Your task to perform on an android device: turn on sleep mode Image 0: 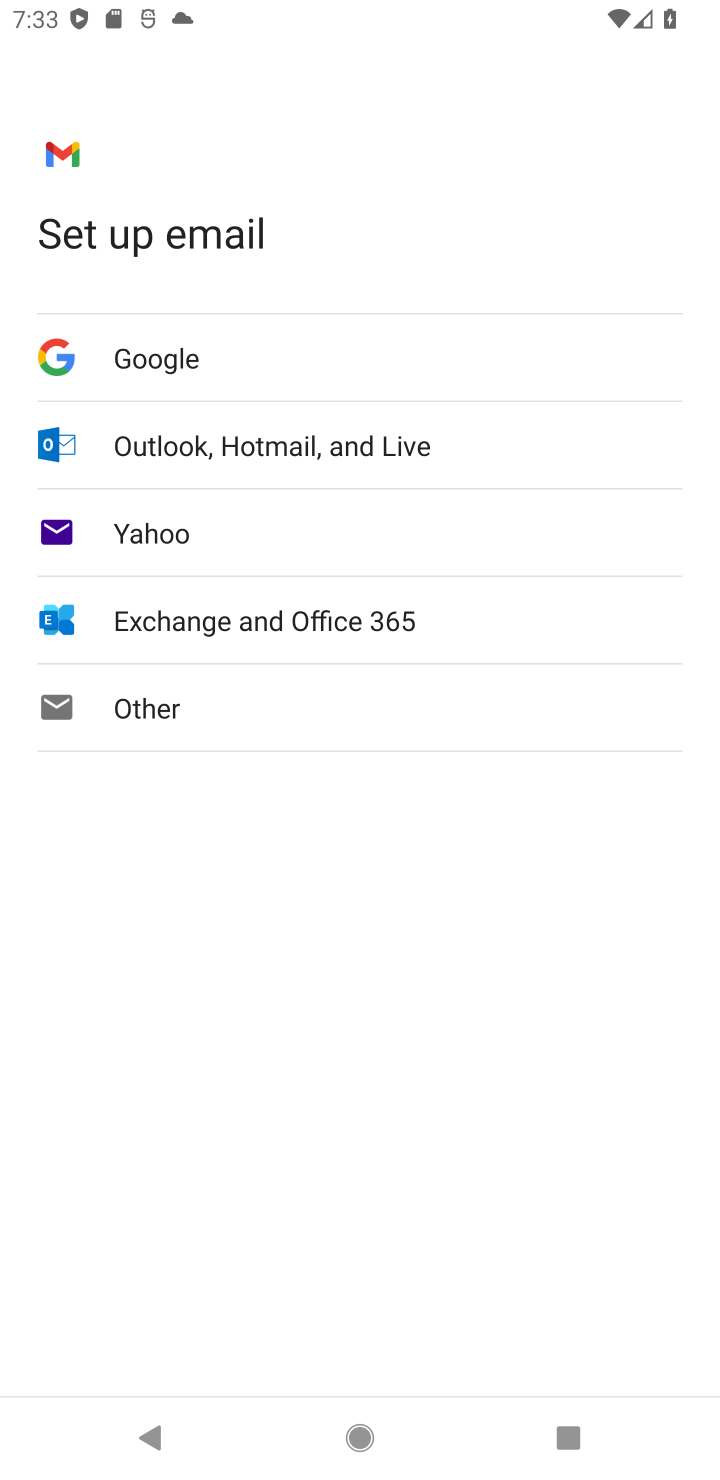
Step 0: press home button
Your task to perform on an android device: turn on sleep mode Image 1: 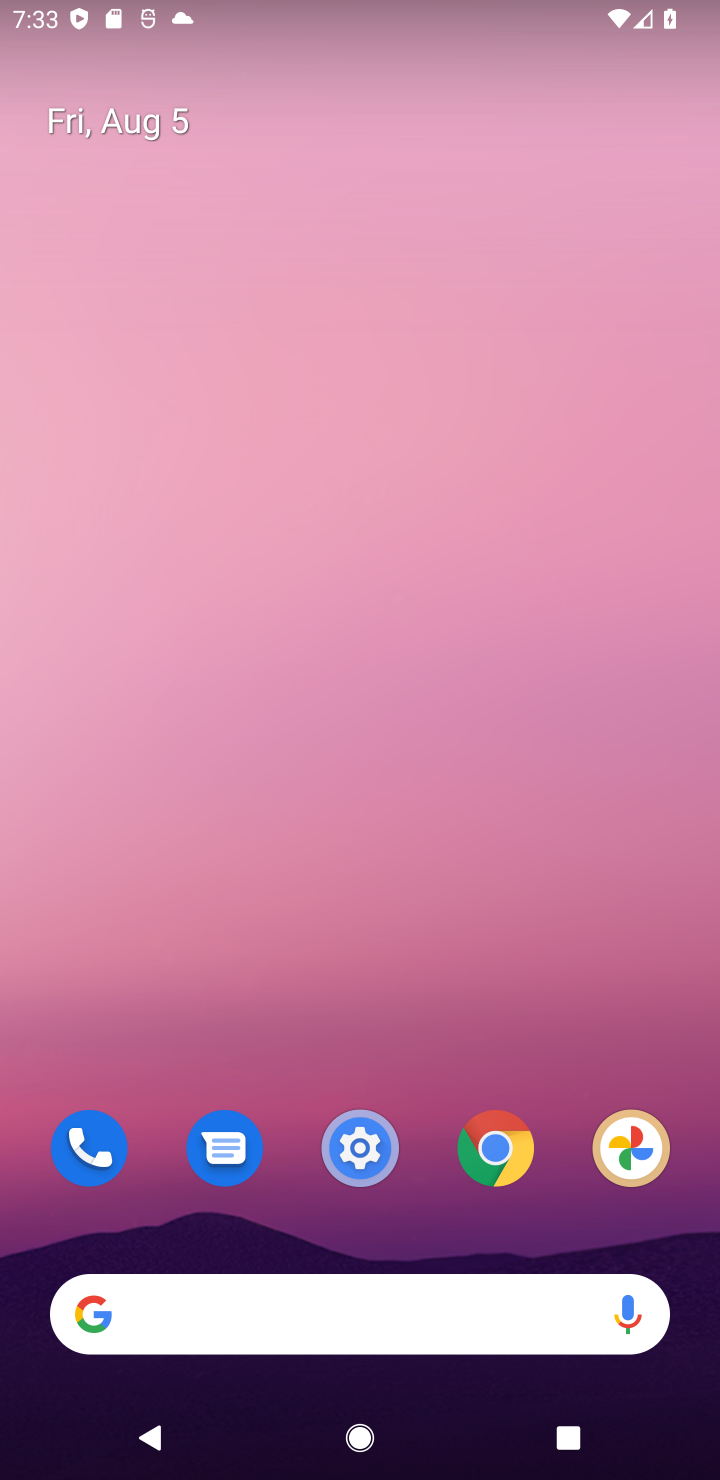
Step 1: click (364, 1151)
Your task to perform on an android device: turn on sleep mode Image 2: 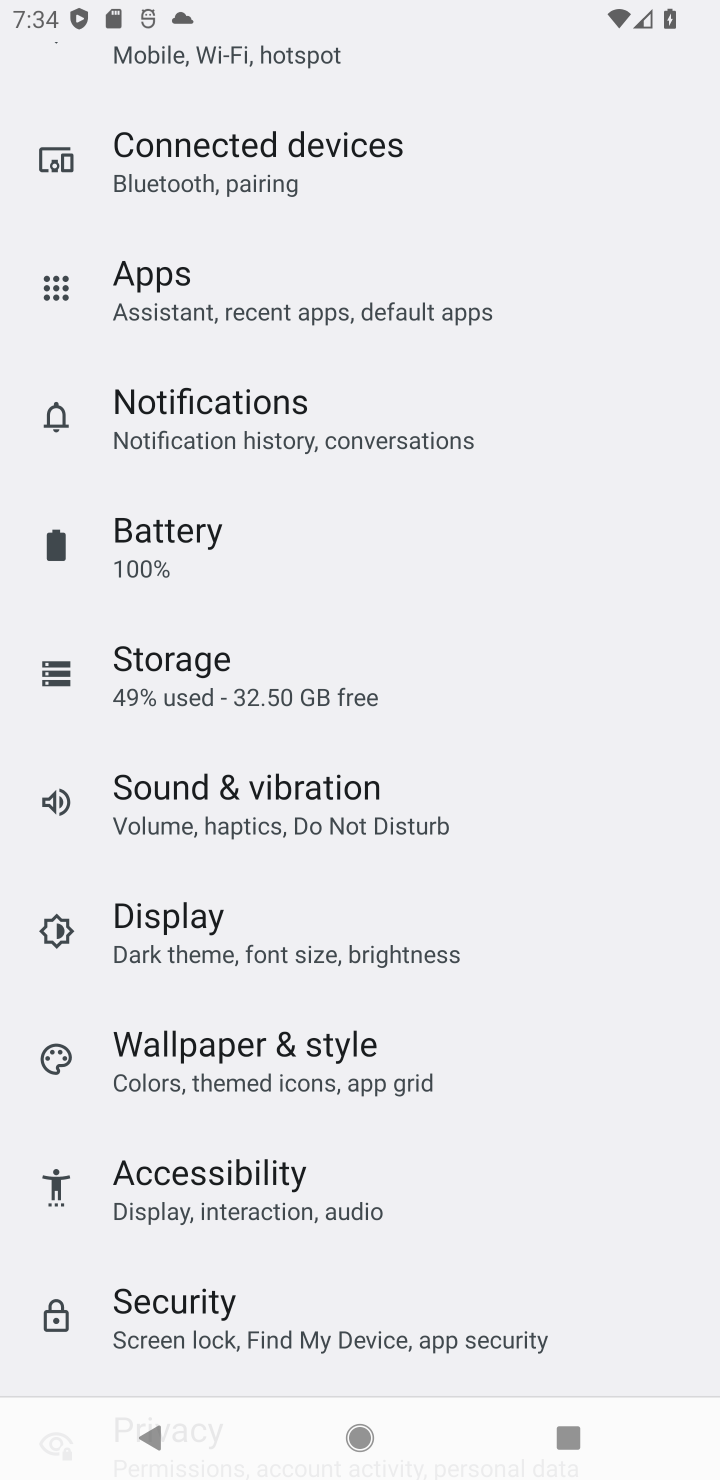
Step 2: click (366, 910)
Your task to perform on an android device: turn on sleep mode Image 3: 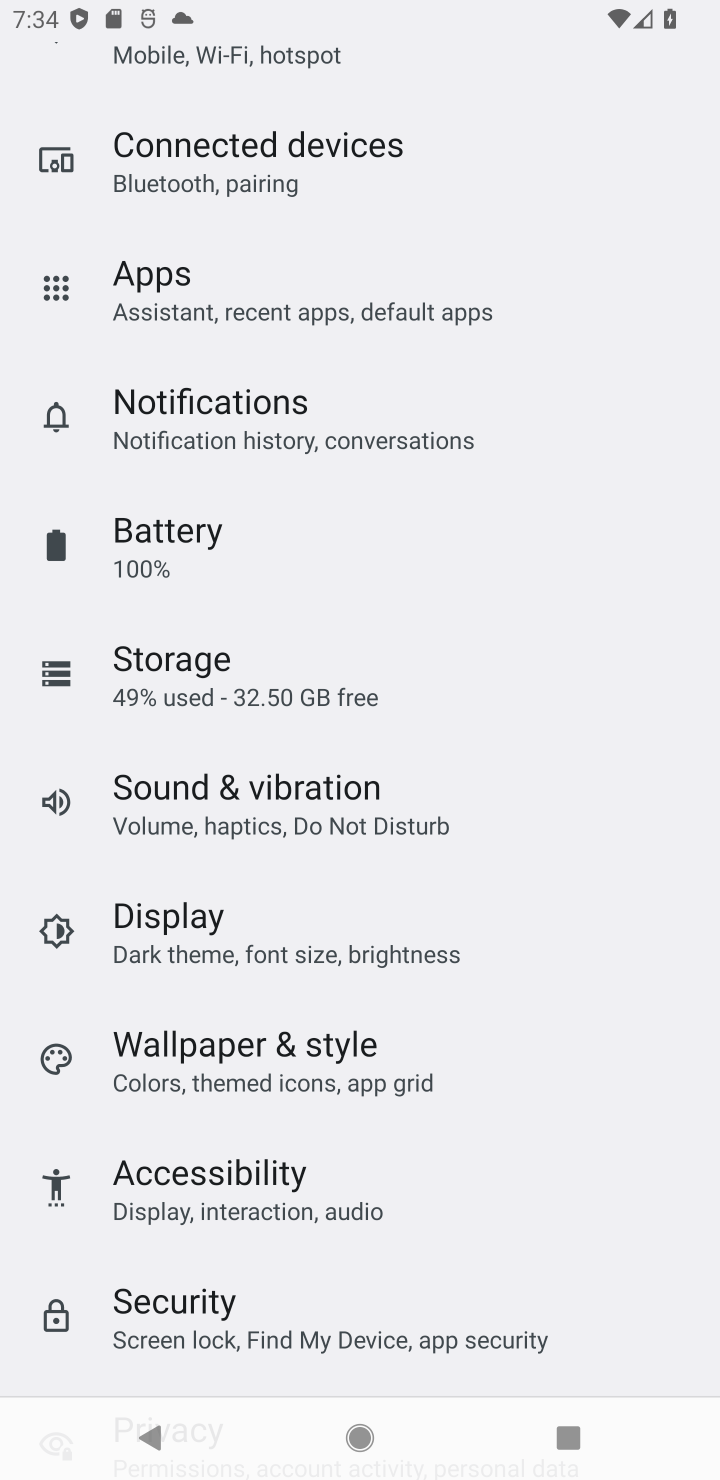
Step 3: click (366, 910)
Your task to perform on an android device: turn on sleep mode Image 4: 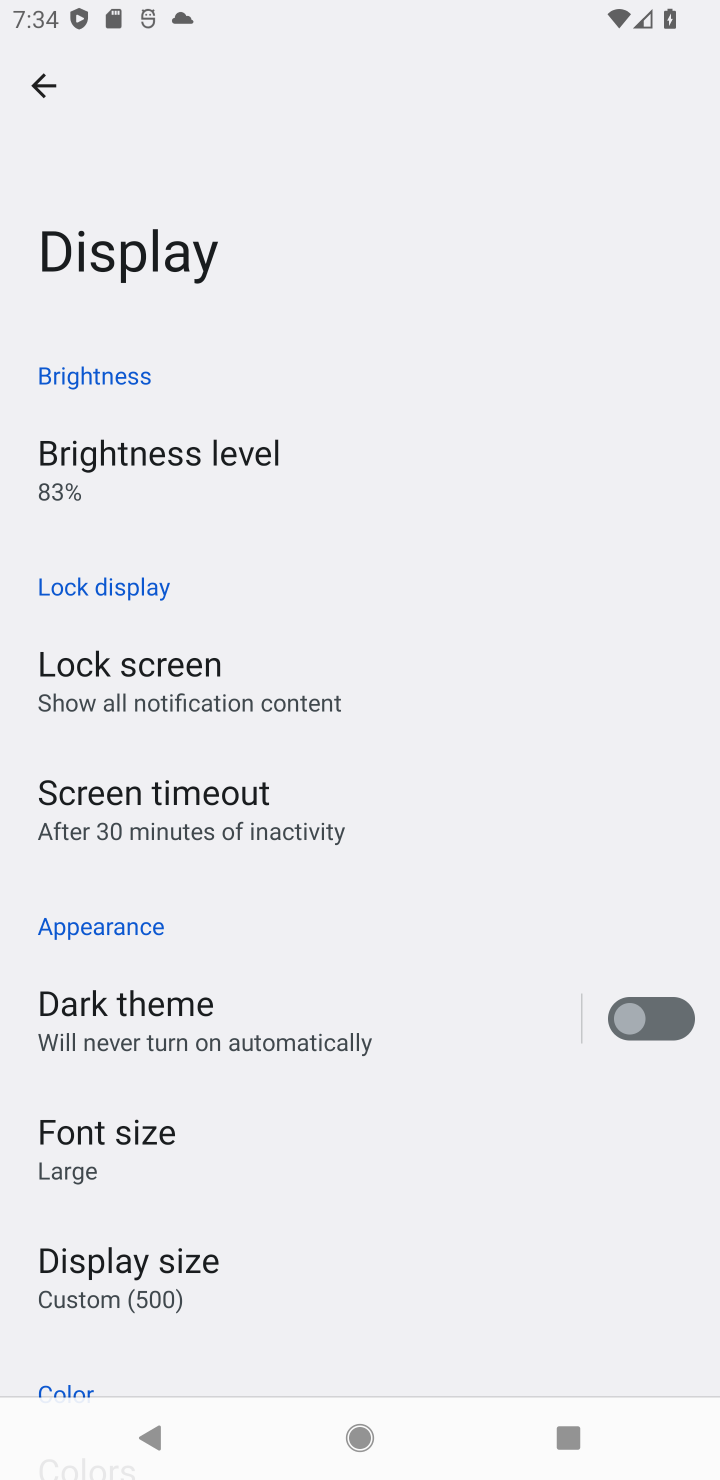
Step 4: task complete